Your task to perform on an android device: Open Chrome and go to settings Image 0: 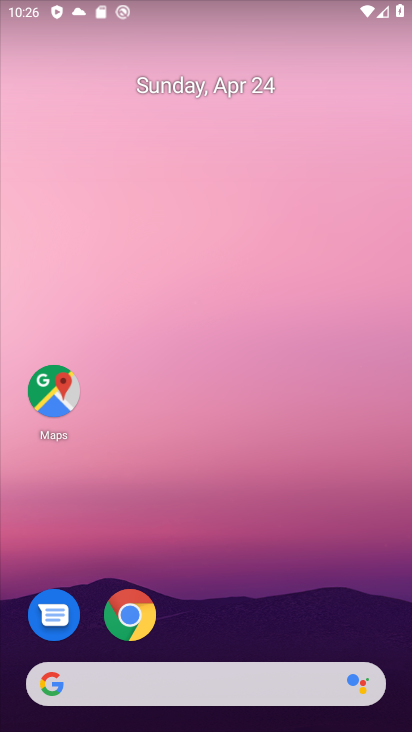
Step 0: drag from (231, 644) to (260, 24)
Your task to perform on an android device: Open Chrome and go to settings Image 1: 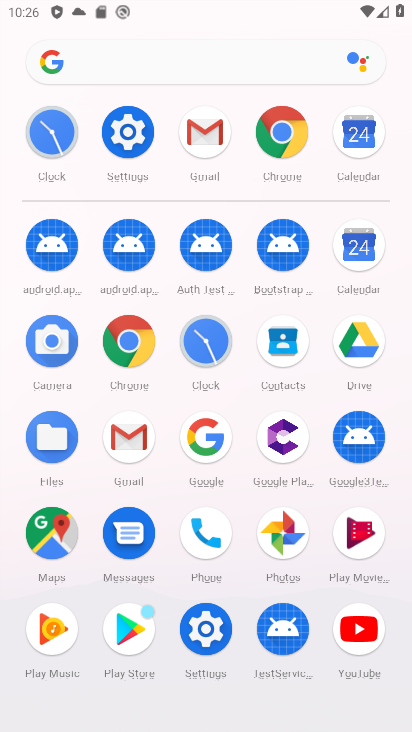
Step 1: click (128, 334)
Your task to perform on an android device: Open Chrome and go to settings Image 2: 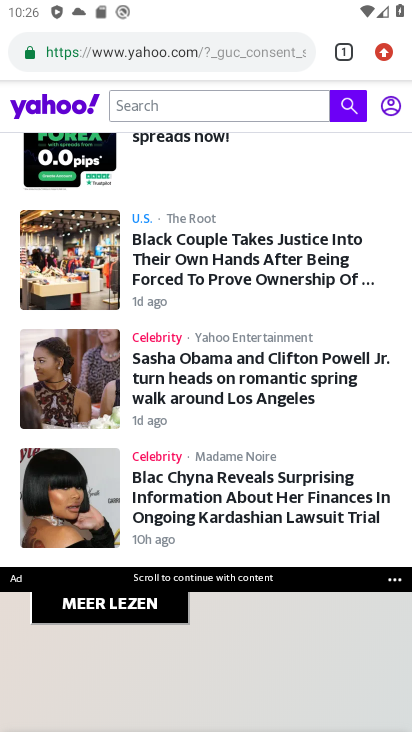
Step 2: click (342, 45)
Your task to perform on an android device: Open Chrome and go to settings Image 3: 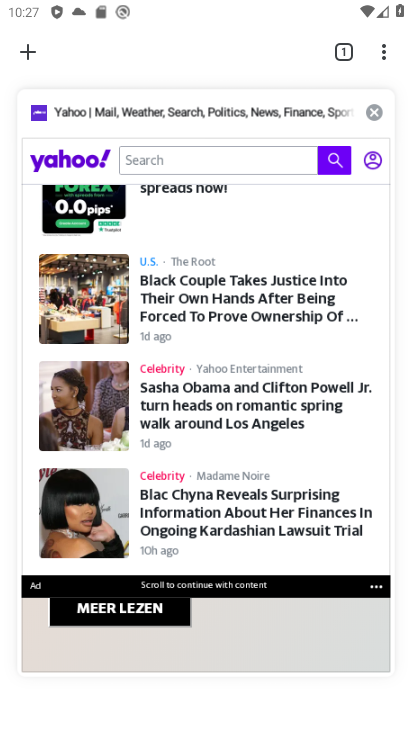
Step 3: click (32, 52)
Your task to perform on an android device: Open Chrome and go to settings Image 4: 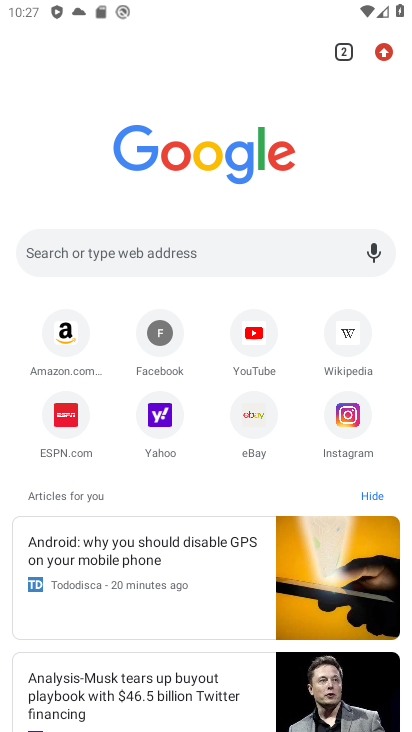
Step 4: click (382, 50)
Your task to perform on an android device: Open Chrome and go to settings Image 5: 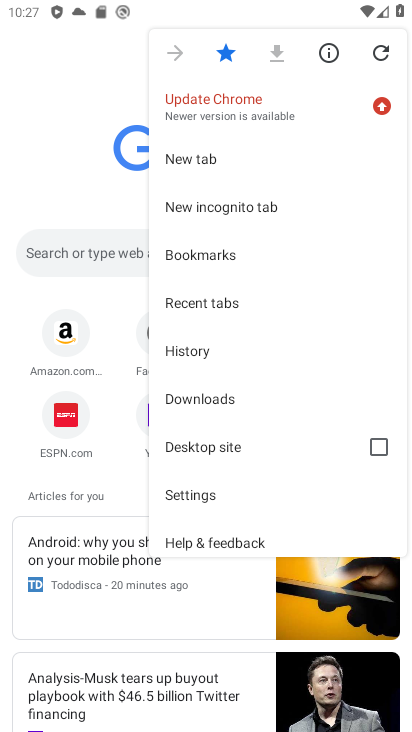
Step 5: click (225, 490)
Your task to perform on an android device: Open Chrome and go to settings Image 6: 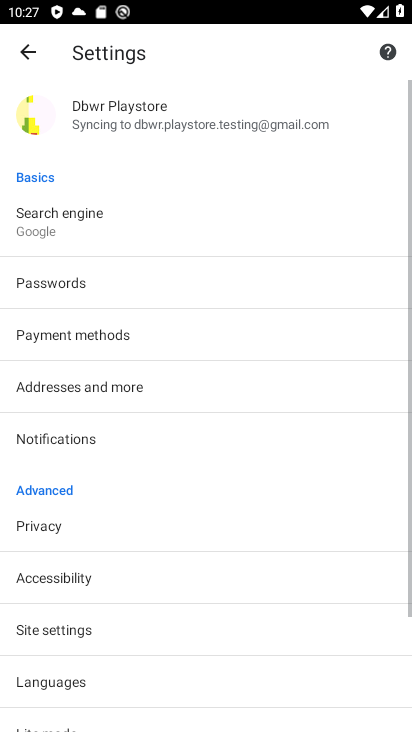
Step 6: task complete